Your task to perform on an android device: turn vacation reply on in the gmail app Image 0: 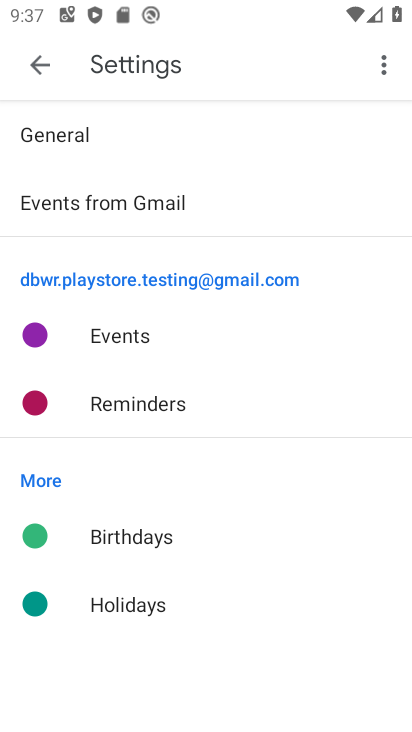
Step 0: press home button
Your task to perform on an android device: turn vacation reply on in the gmail app Image 1: 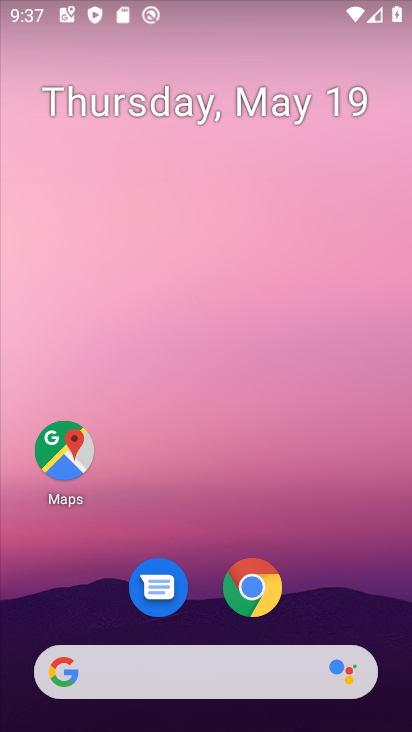
Step 1: drag from (213, 690) to (186, 402)
Your task to perform on an android device: turn vacation reply on in the gmail app Image 2: 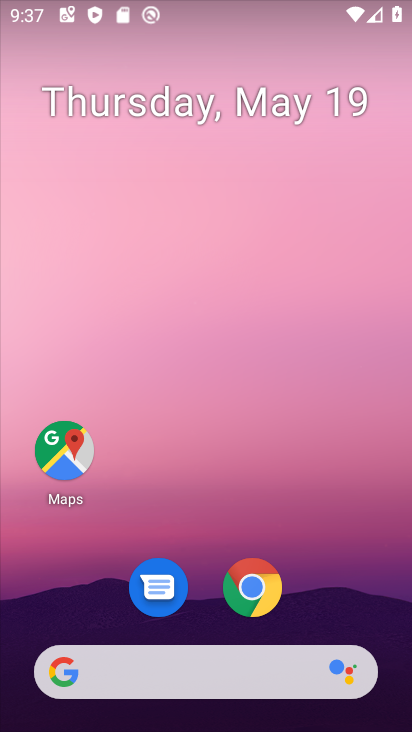
Step 2: drag from (197, 664) to (193, 188)
Your task to perform on an android device: turn vacation reply on in the gmail app Image 3: 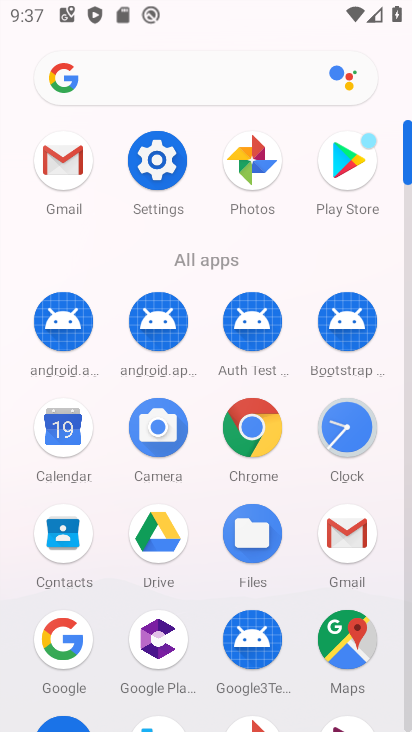
Step 3: click (46, 185)
Your task to perform on an android device: turn vacation reply on in the gmail app Image 4: 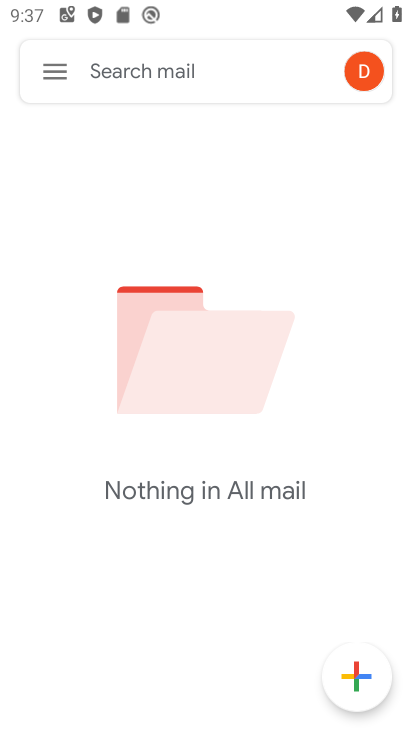
Step 4: click (73, 75)
Your task to perform on an android device: turn vacation reply on in the gmail app Image 5: 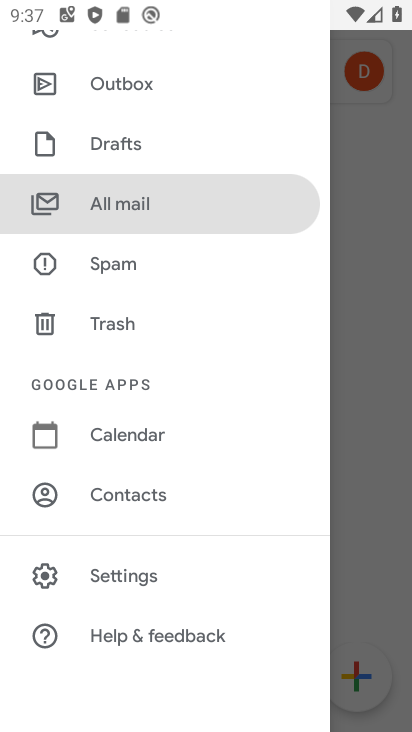
Step 5: click (152, 581)
Your task to perform on an android device: turn vacation reply on in the gmail app Image 6: 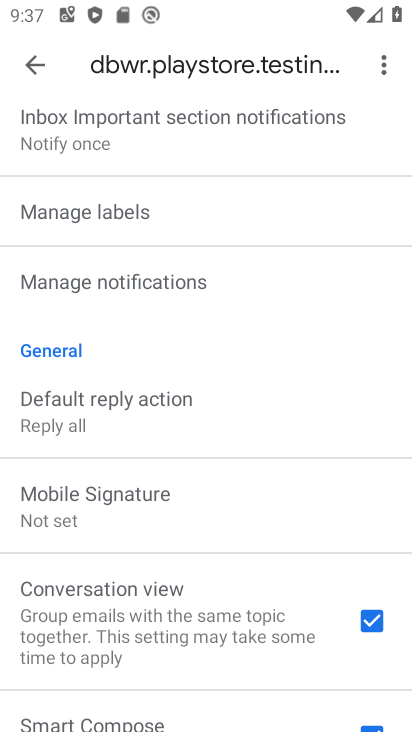
Step 6: drag from (185, 500) to (119, 14)
Your task to perform on an android device: turn vacation reply on in the gmail app Image 7: 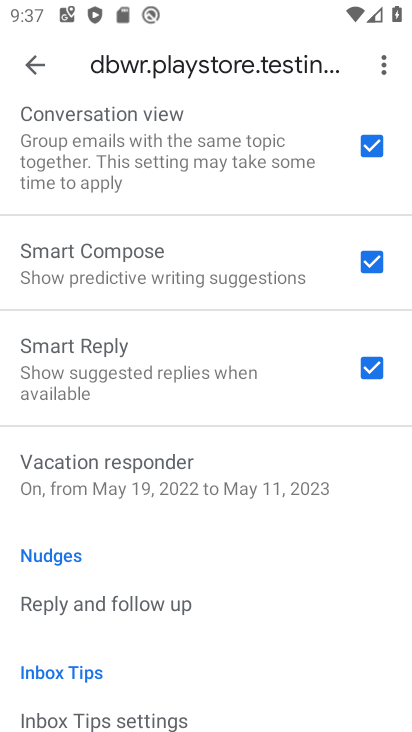
Step 7: click (217, 483)
Your task to perform on an android device: turn vacation reply on in the gmail app Image 8: 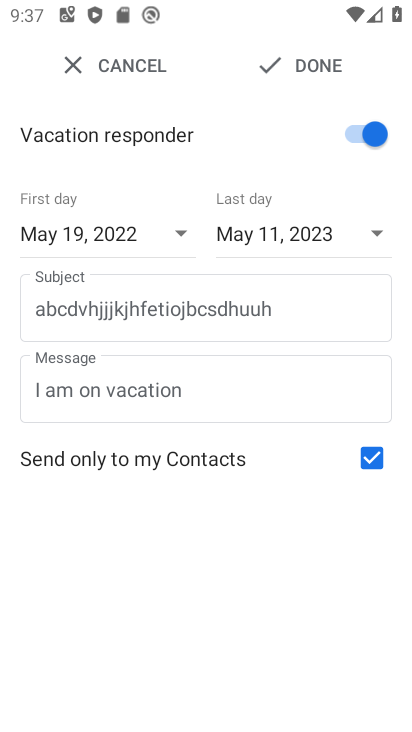
Step 8: click (304, 56)
Your task to perform on an android device: turn vacation reply on in the gmail app Image 9: 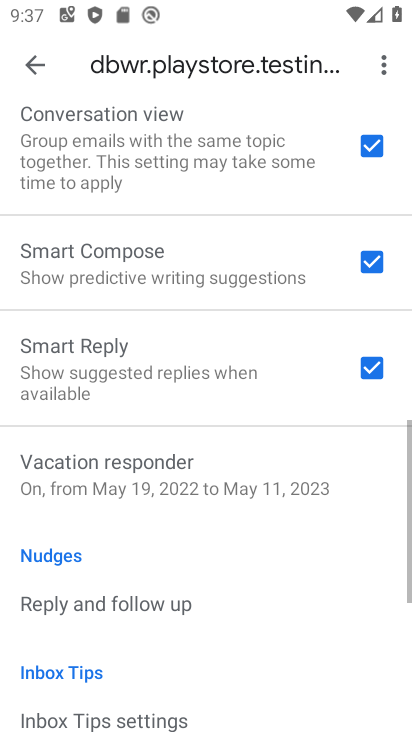
Step 9: task complete